Your task to perform on an android device: Open the map Image 0: 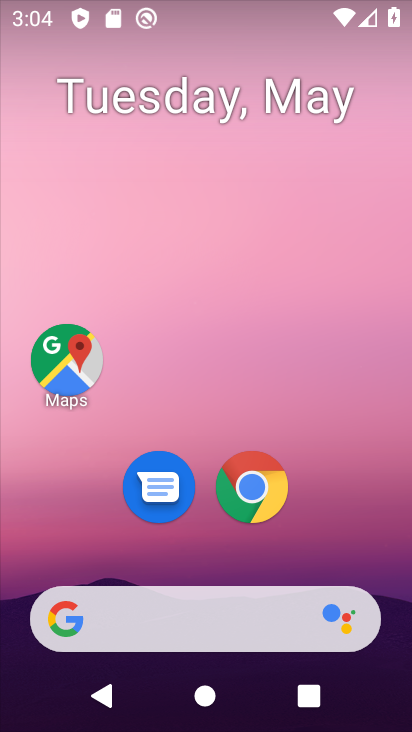
Step 0: click (50, 374)
Your task to perform on an android device: Open the map Image 1: 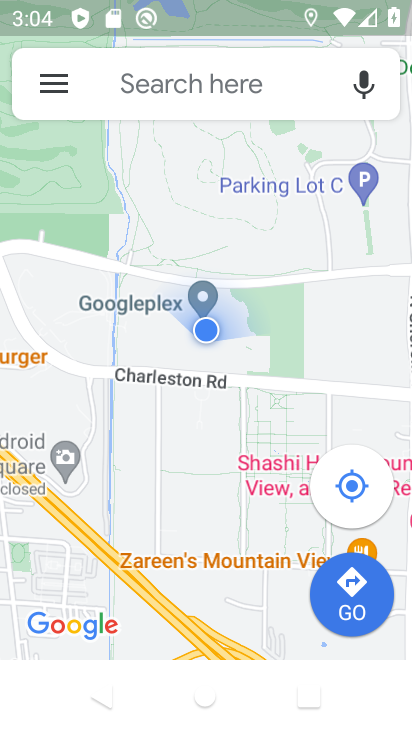
Step 1: task complete